Your task to perform on an android device: turn pop-ups on in chrome Image 0: 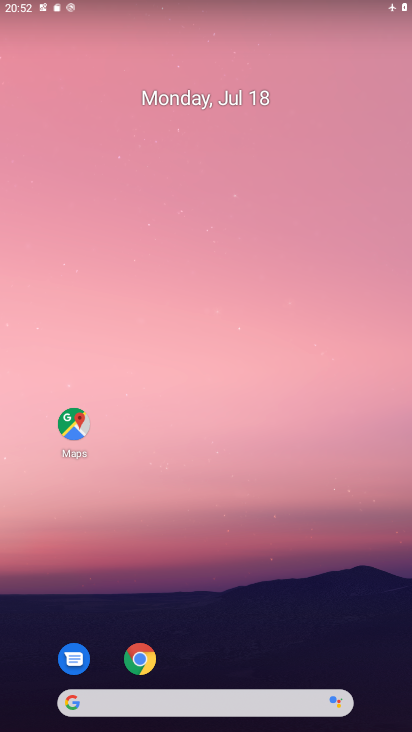
Step 0: drag from (234, 586) to (230, 189)
Your task to perform on an android device: turn pop-ups on in chrome Image 1: 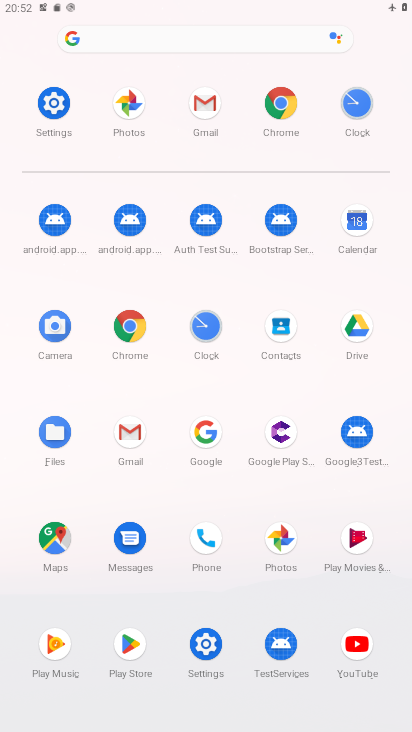
Step 1: click (276, 108)
Your task to perform on an android device: turn pop-ups on in chrome Image 2: 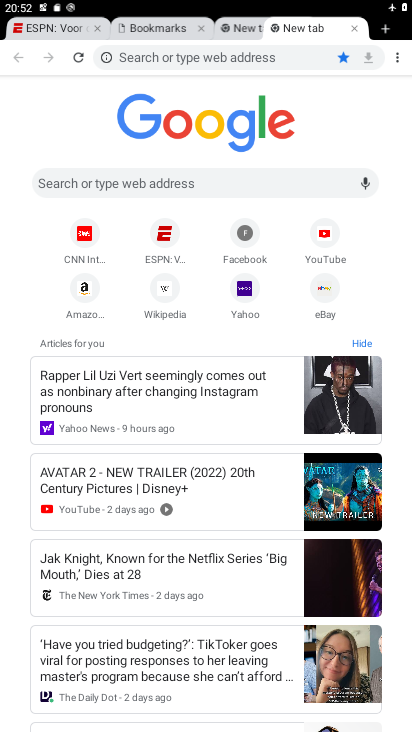
Step 2: drag from (397, 49) to (288, 262)
Your task to perform on an android device: turn pop-ups on in chrome Image 3: 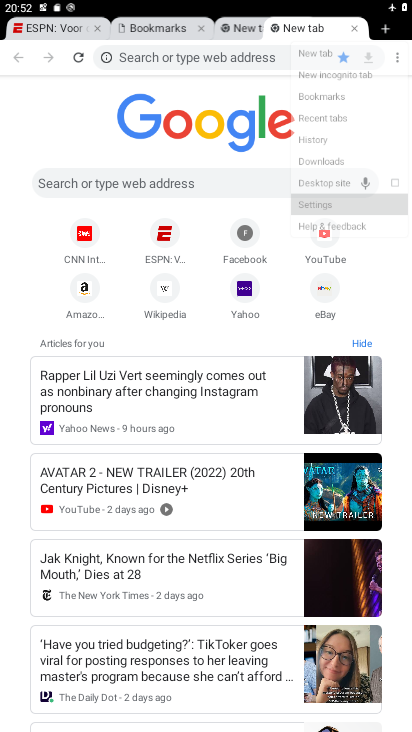
Step 3: click (288, 262)
Your task to perform on an android device: turn pop-ups on in chrome Image 4: 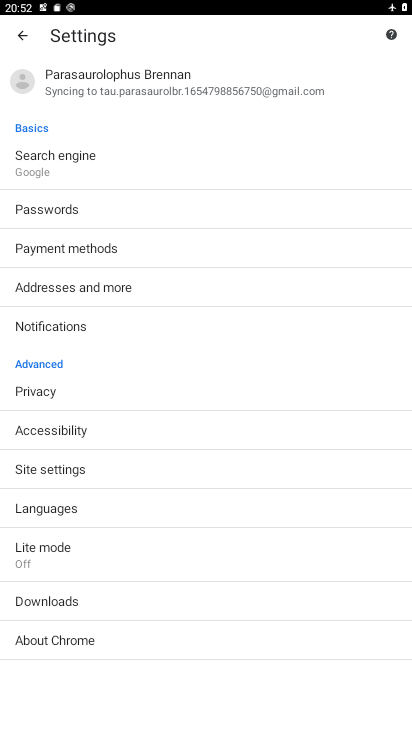
Step 4: click (47, 470)
Your task to perform on an android device: turn pop-ups on in chrome Image 5: 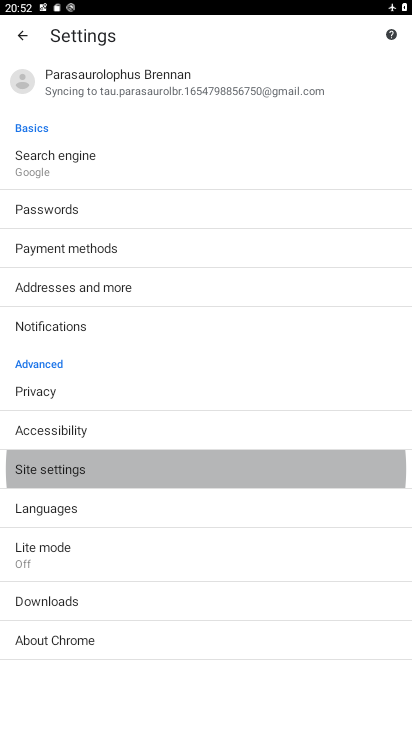
Step 5: click (47, 469)
Your task to perform on an android device: turn pop-ups on in chrome Image 6: 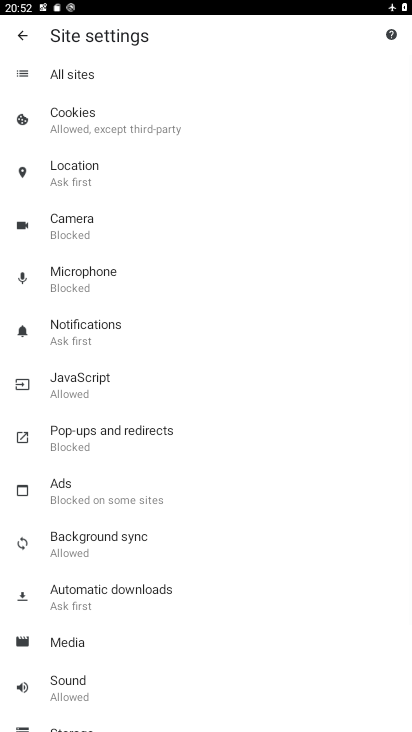
Step 6: click (75, 434)
Your task to perform on an android device: turn pop-ups on in chrome Image 7: 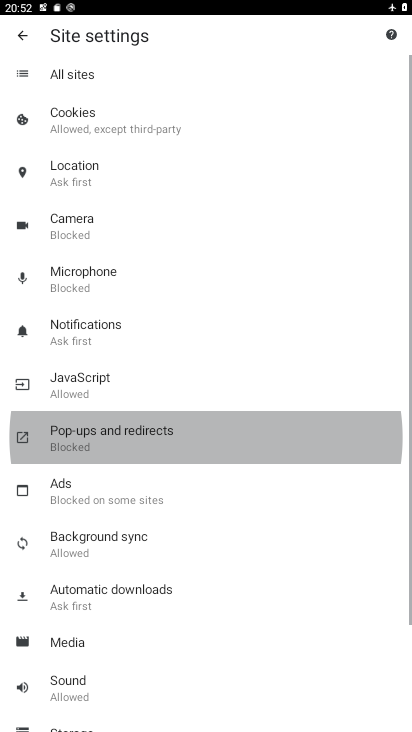
Step 7: click (75, 432)
Your task to perform on an android device: turn pop-ups on in chrome Image 8: 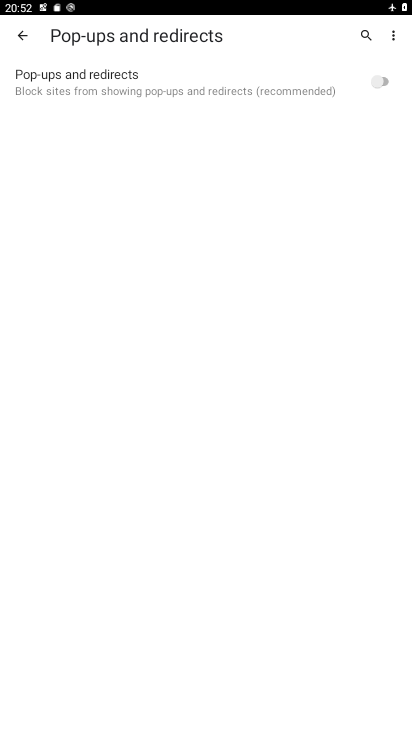
Step 8: click (370, 78)
Your task to perform on an android device: turn pop-ups on in chrome Image 9: 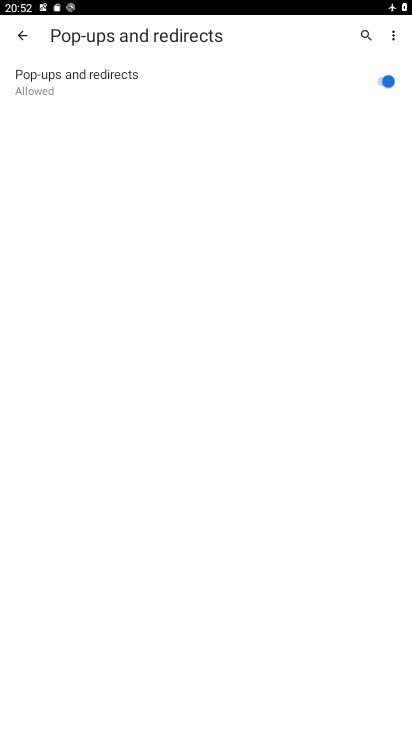
Step 9: task complete